Your task to perform on an android device: turn on javascript in the chrome app Image 0: 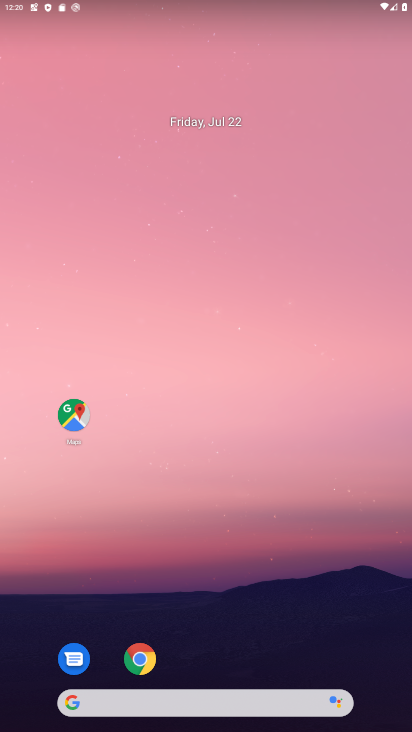
Step 0: click (142, 666)
Your task to perform on an android device: turn on javascript in the chrome app Image 1: 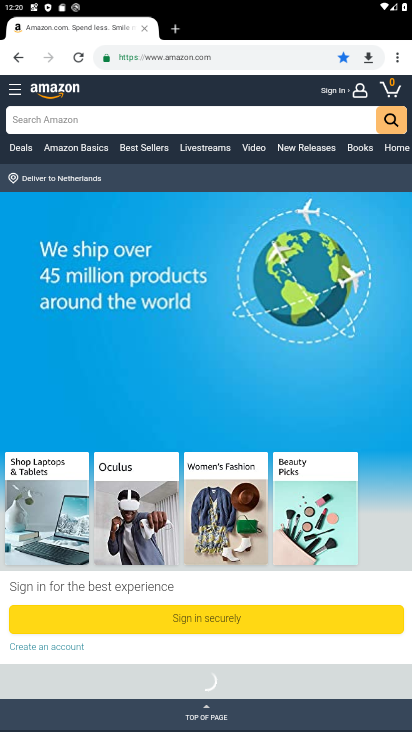
Step 1: click (396, 64)
Your task to perform on an android device: turn on javascript in the chrome app Image 2: 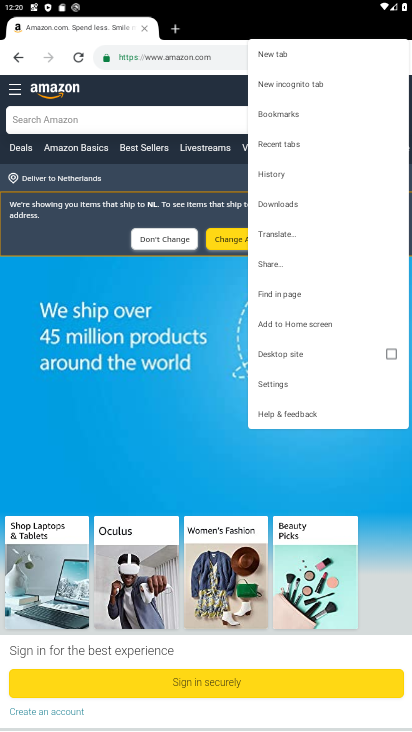
Step 2: click (262, 385)
Your task to perform on an android device: turn on javascript in the chrome app Image 3: 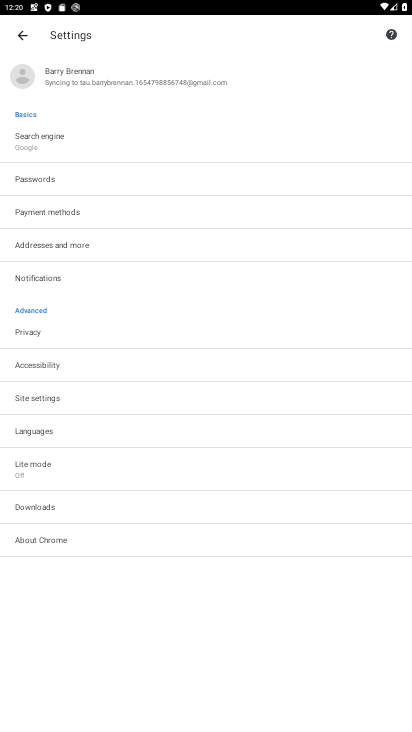
Step 3: click (52, 398)
Your task to perform on an android device: turn on javascript in the chrome app Image 4: 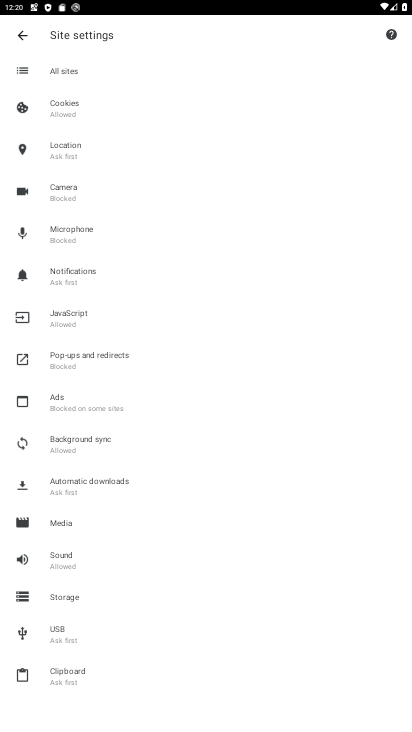
Step 4: click (83, 324)
Your task to perform on an android device: turn on javascript in the chrome app Image 5: 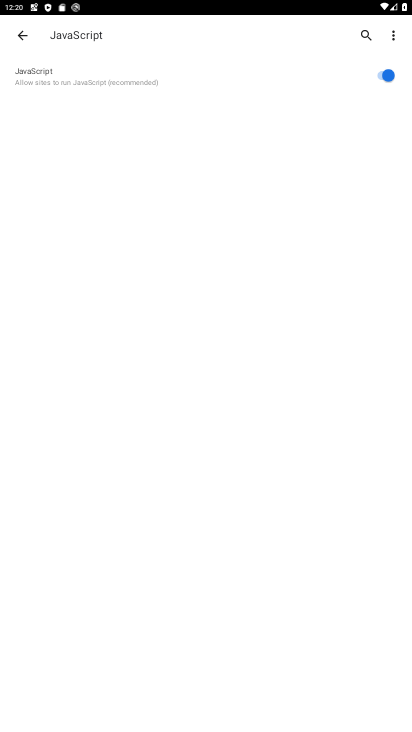
Step 5: task complete